Your task to perform on an android device: turn off wifi Image 0: 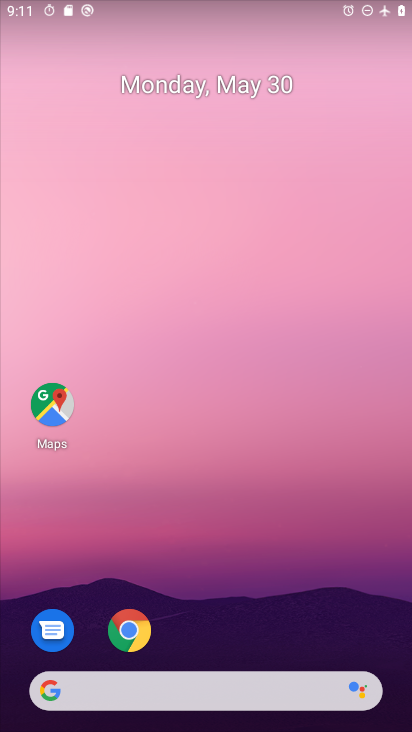
Step 0: drag from (239, 10) to (324, 454)
Your task to perform on an android device: turn off wifi Image 1: 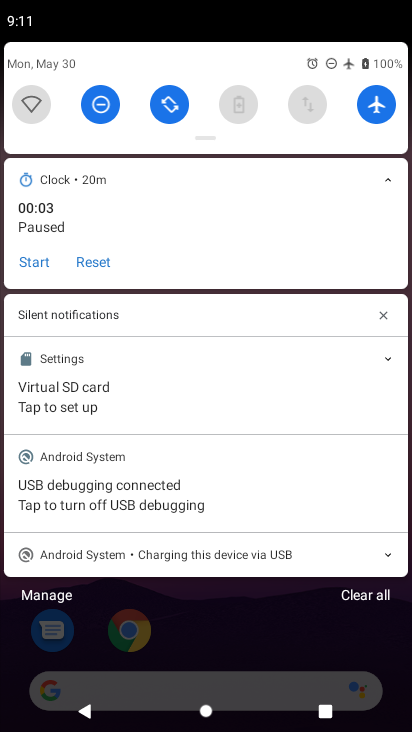
Step 1: task complete